Your task to perform on an android device: Open privacy settings Image 0: 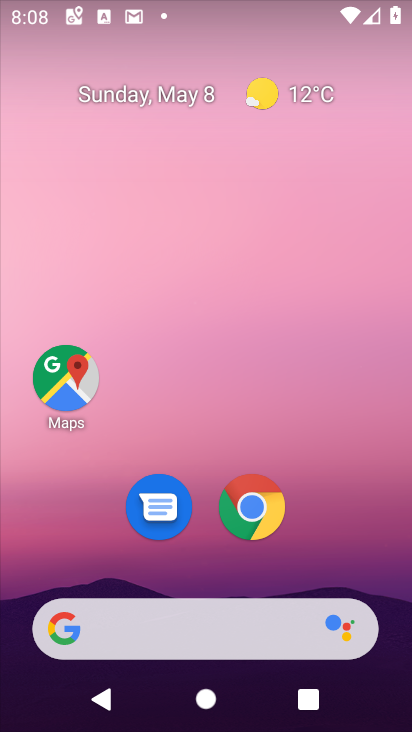
Step 0: drag from (235, 697) to (126, 17)
Your task to perform on an android device: Open privacy settings Image 1: 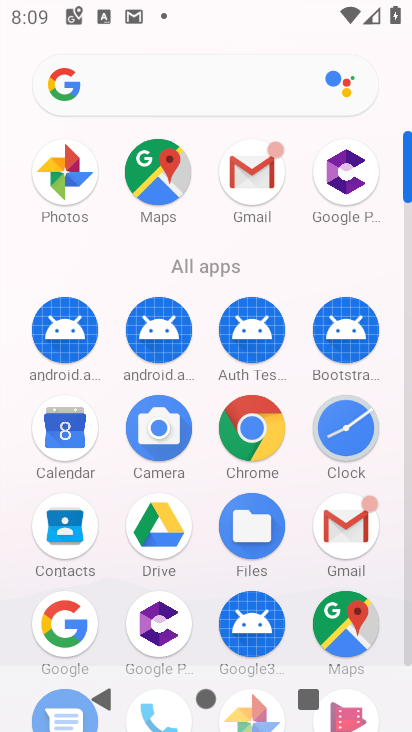
Step 1: drag from (239, 583) to (219, 101)
Your task to perform on an android device: Open privacy settings Image 2: 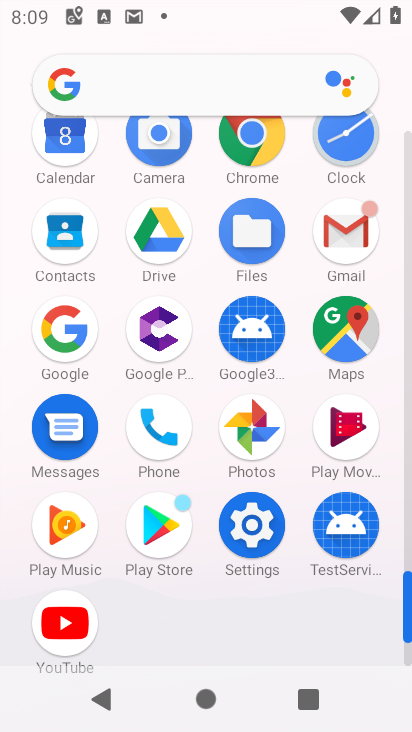
Step 2: click (275, 535)
Your task to perform on an android device: Open privacy settings Image 3: 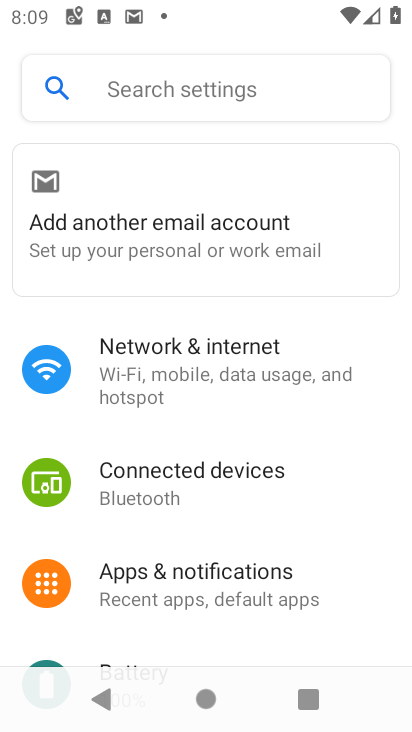
Step 3: drag from (216, 570) to (82, 84)
Your task to perform on an android device: Open privacy settings Image 4: 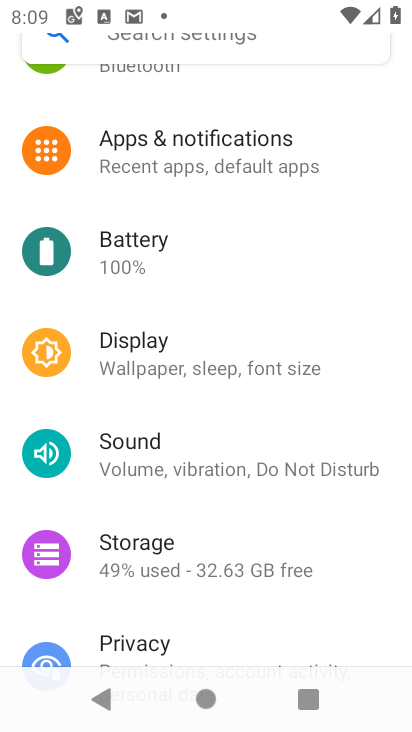
Step 4: click (191, 649)
Your task to perform on an android device: Open privacy settings Image 5: 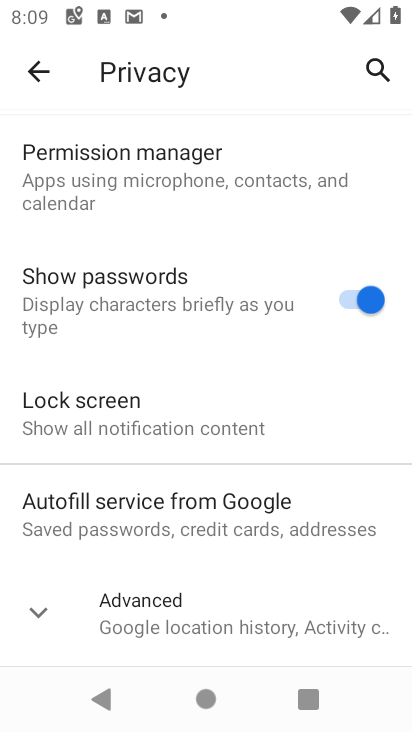
Step 5: task complete